Your task to perform on an android device: Show me productivity apps on the Play Store Image 0: 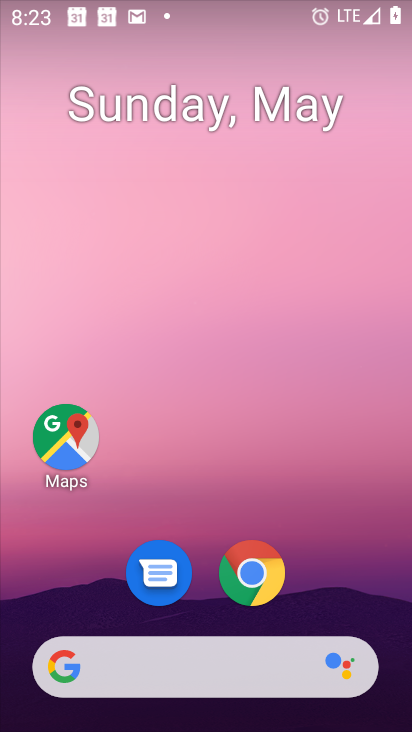
Step 0: drag from (215, 519) to (224, 0)
Your task to perform on an android device: Show me productivity apps on the Play Store Image 1: 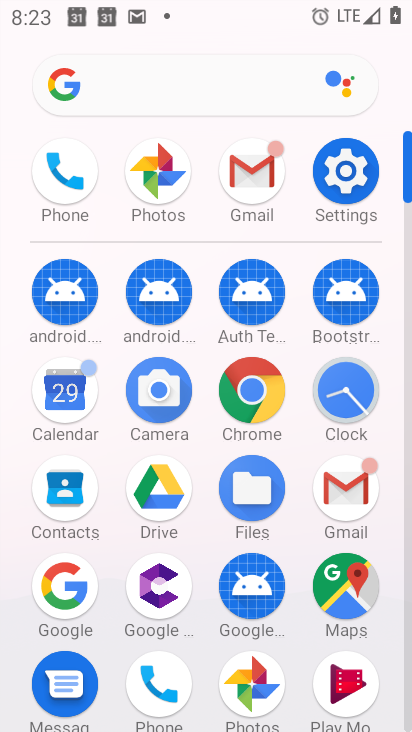
Step 1: drag from (127, 517) to (176, 115)
Your task to perform on an android device: Show me productivity apps on the Play Store Image 2: 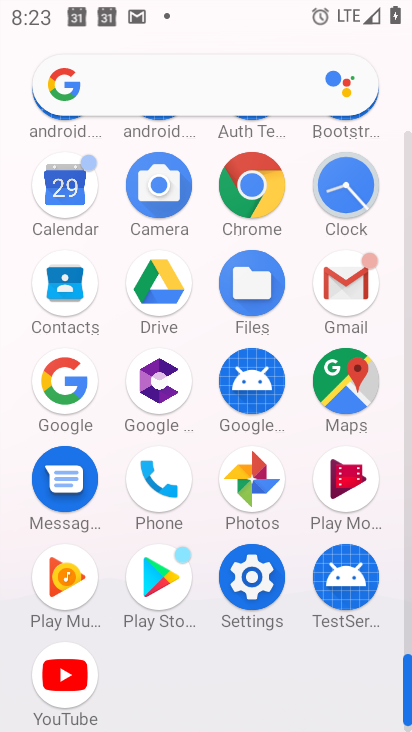
Step 2: click (154, 567)
Your task to perform on an android device: Show me productivity apps on the Play Store Image 3: 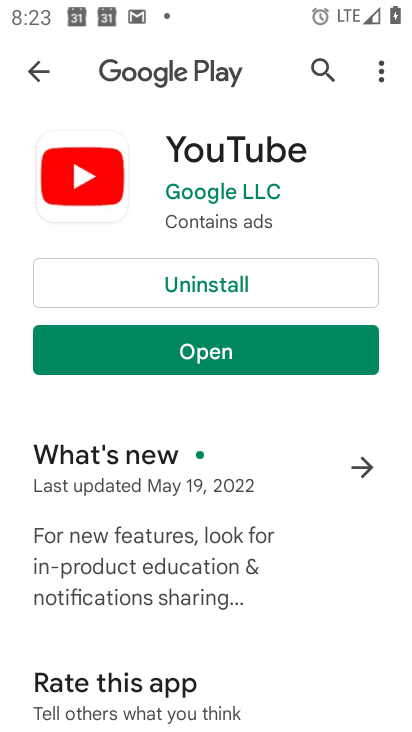
Step 3: click (43, 60)
Your task to perform on an android device: Show me productivity apps on the Play Store Image 4: 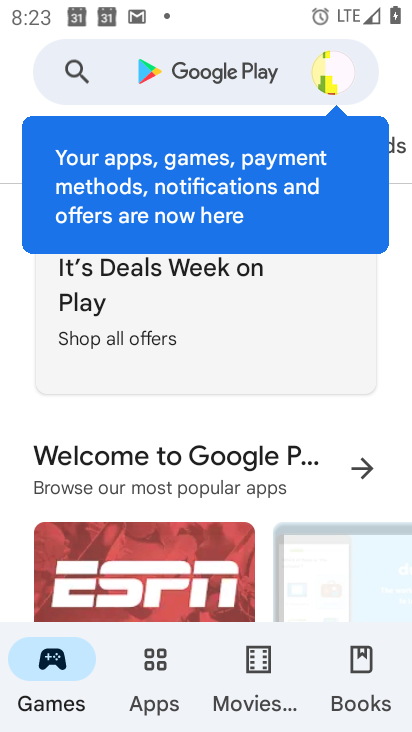
Step 4: click (155, 651)
Your task to perform on an android device: Show me productivity apps on the Play Store Image 5: 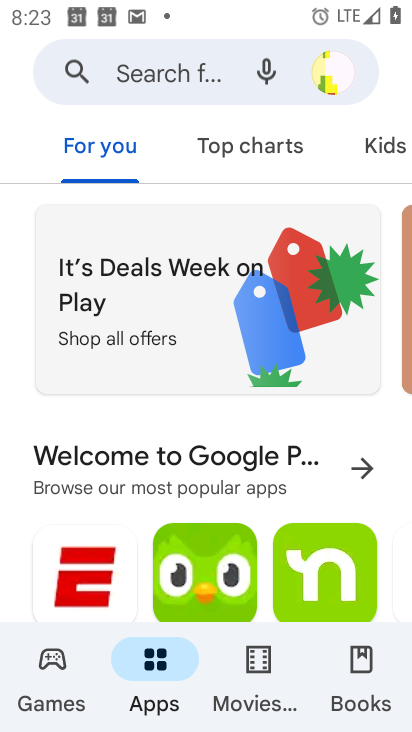
Step 5: drag from (368, 147) to (63, 140)
Your task to perform on an android device: Show me productivity apps on the Play Store Image 6: 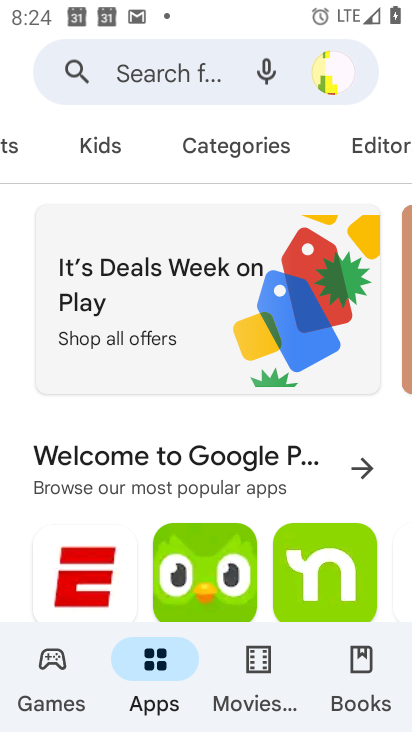
Step 6: click (253, 144)
Your task to perform on an android device: Show me productivity apps on the Play Store Image 7: 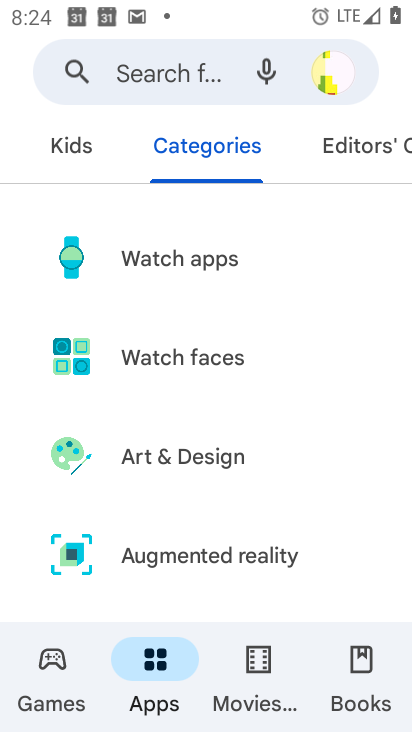
Step 7: drag from (296, 524) to (255, 106)
Your task to perform on an android device: Show me productivity apps on the Play Store Image 8: 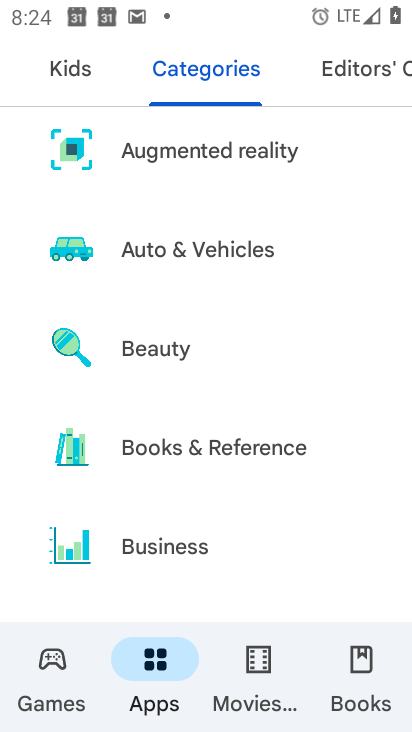
Step 8: drag from (213, 573) to (248, 27)
Your task to perform on an android device: Show me productivity apps on the Play Store Image 9: 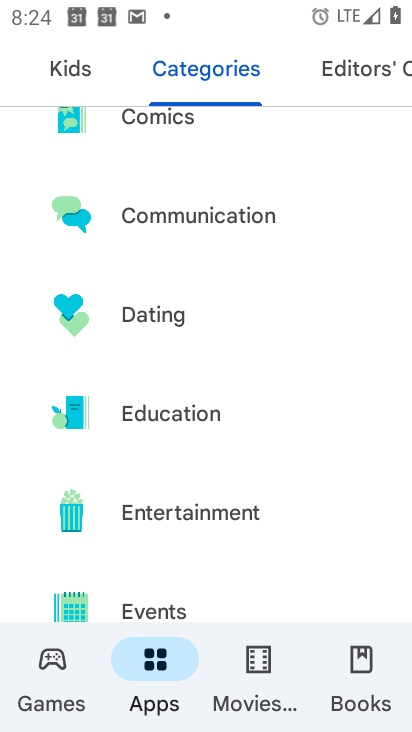
Step 9: drag from (249, 541) to (210, 34)
Your task to perform on an android device: Show me productivity apps on the Play Store Image 10: 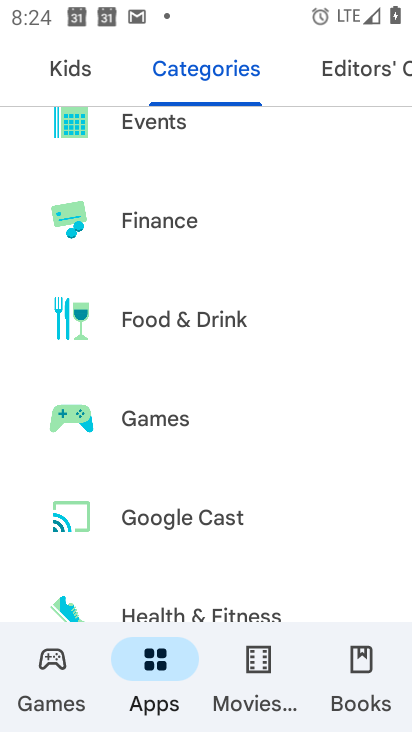
Step 10: drag from (273, 537) to (271, 68)
Your task to perform on an android device: Show me productivity apps on the Play Store Image 11: 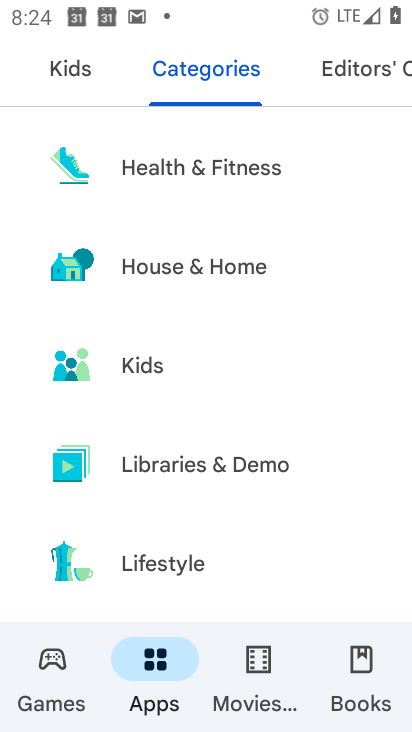
Step 11: drag from (243, 543) to (249, 76)
Your task to perform on an android device: Show me productivity apps on the Play Store Image 12: 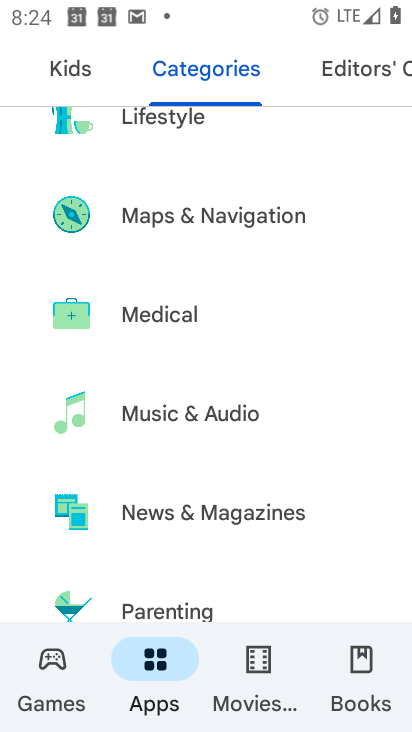
Step 12: drag from (215, 558) to (238, 133)
Your task to perform on an android device: Show me productivity apps on the Play Store Image 13: 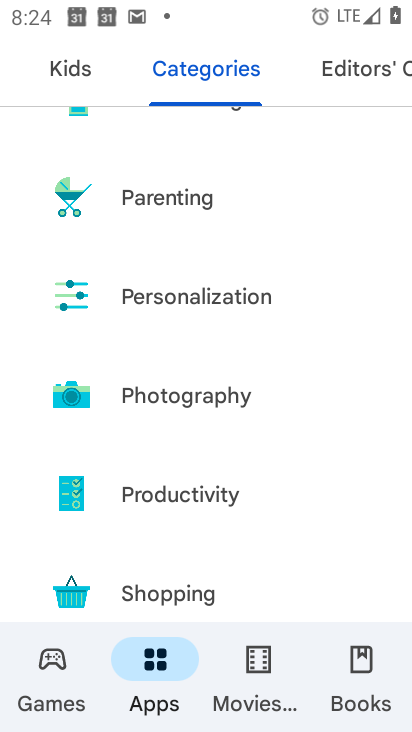
Step 13: click (214, 499)
Your task to perform on an android device: Show me productivity apps on the Play Store Image 14: 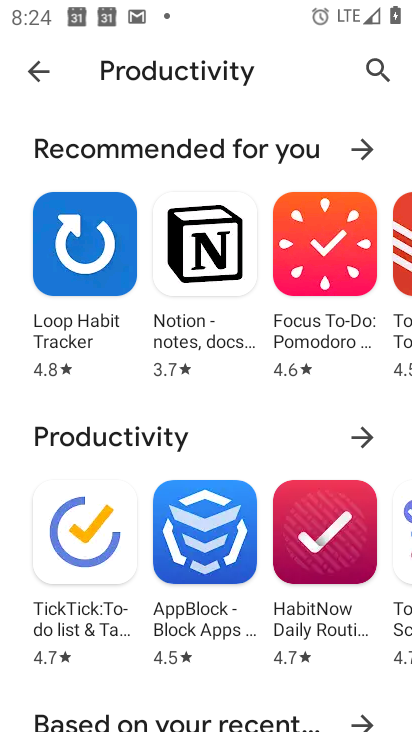
Step 14: click (357, 426)
Your task to perform on an android device: Show me productivity apps on the Play Store Image 15: 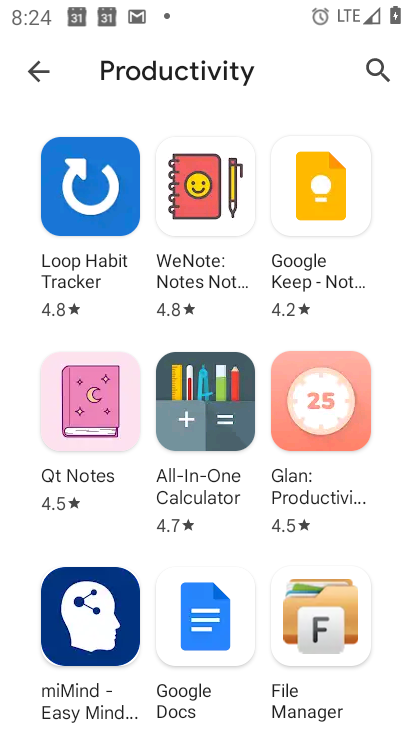
Step 15: task complete